Your task to perform on an android device: add a contact Image 0: 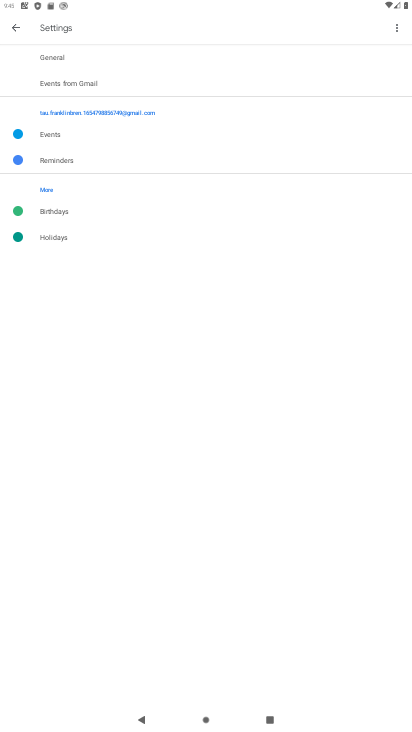
Step 0: press home button
Your task to perform on an android device: add a contact Image 1: 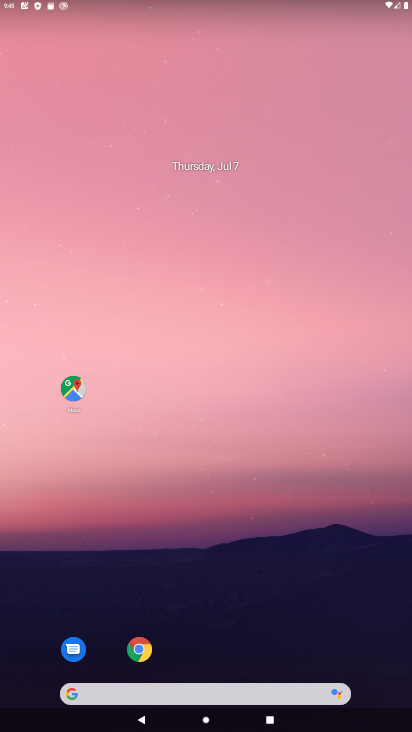
Step 1: drag from (287, 617) to (270, 247)
Your task to perform on an android device: add a contact Image 2: 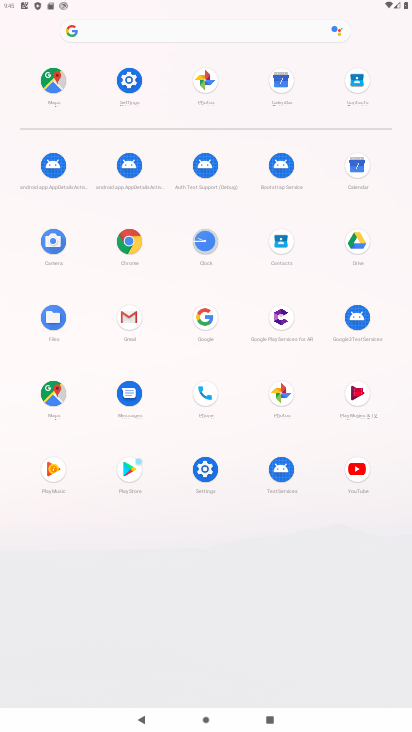
Step 2: click (281, 243)
Your task to perform on an android device: add a contact Image 3: 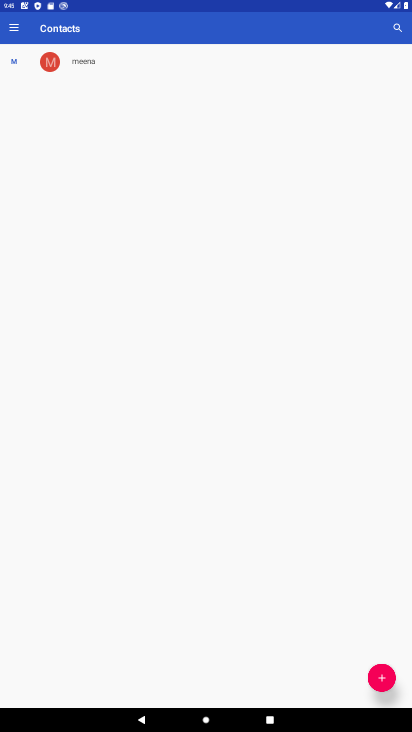
Step 3: click (377, 675)
Your task to perform on an android device: add a contact Image 4: 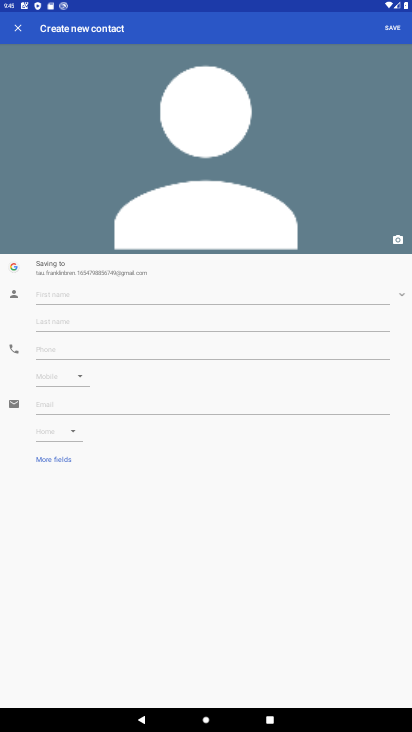
Step 4: task complete